Your task to perform on an android device: Open Maps and search for coffee Image 0: 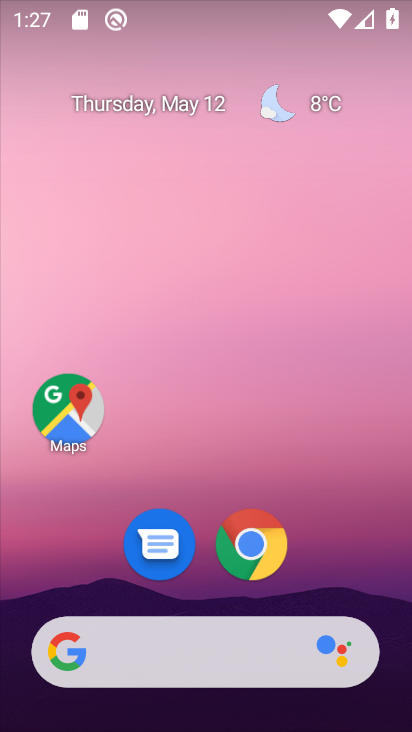
Step 0: click (61, 386)
Your task to perform on an android device: Open Maps and search for coffee Image 1: 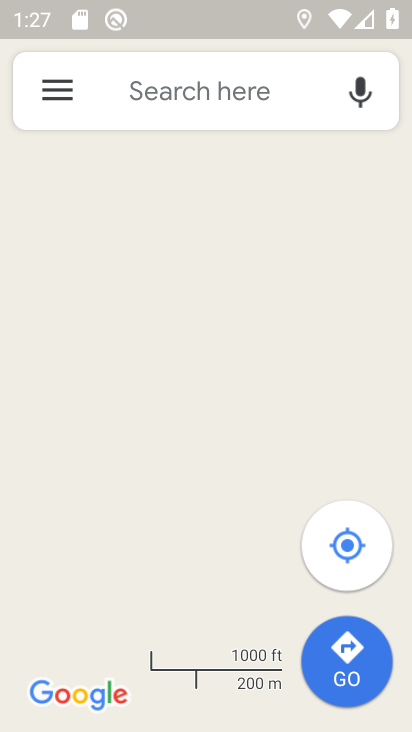
Step 1: click (145, 99)
Your task to perform on an android device: Open Maps and search for coffee Image 2: 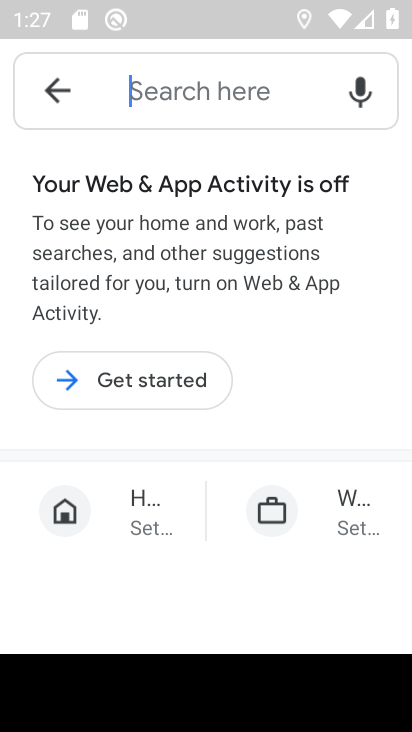
Step 2: type "coffee"
Your task to perform on an android device: Open Maps and search for coffee Image 3: 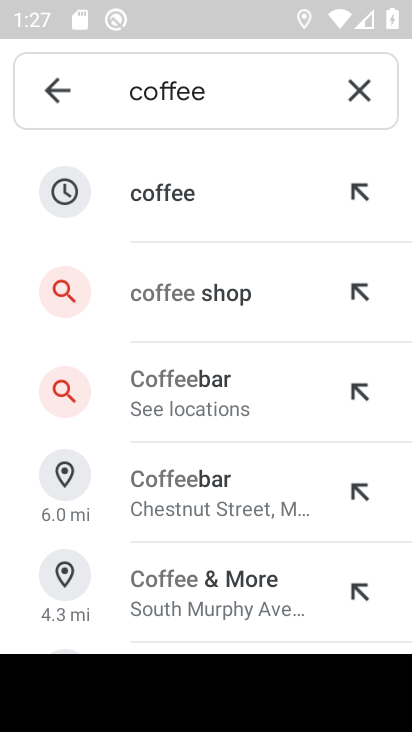
Step 3: click (199, 196)
Your task to perform on an android device: Open Maps and search for coffee Image 4: 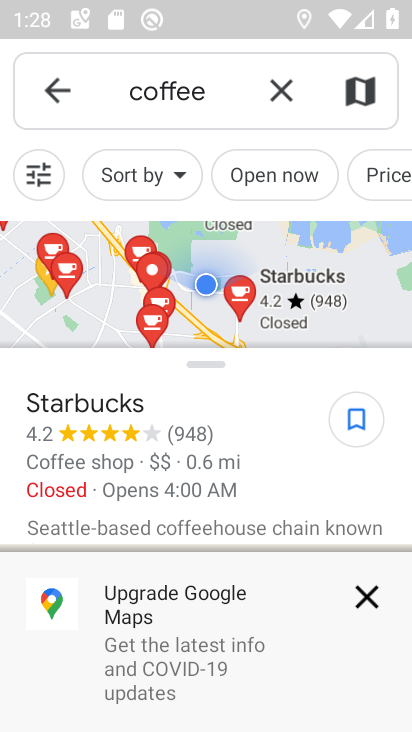
Step 4: task complete